Your task to perform on an android device: turn on location history Image 0: 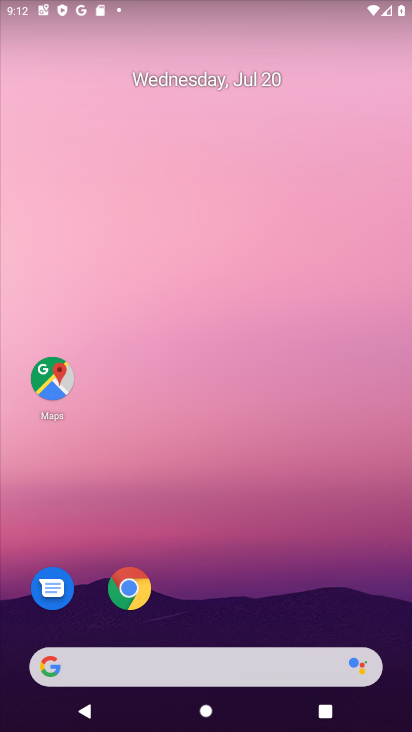
Step 0: click (338, 192)
Your task to perform on an android device: turn on location history Image 1: 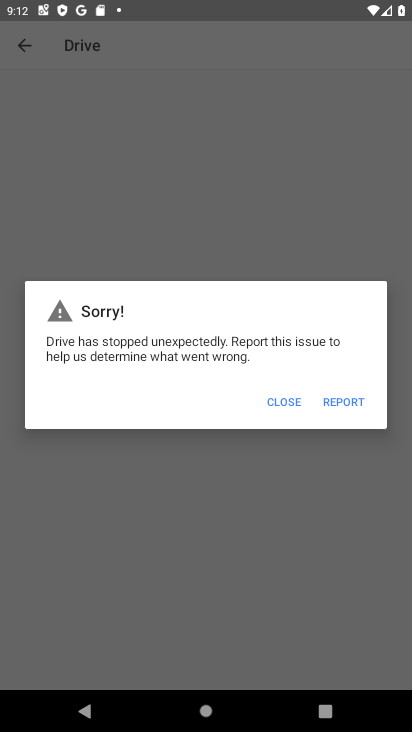
Step 1: click (282, 400)
Your task to perform on an android device: turn on location history Image 2: 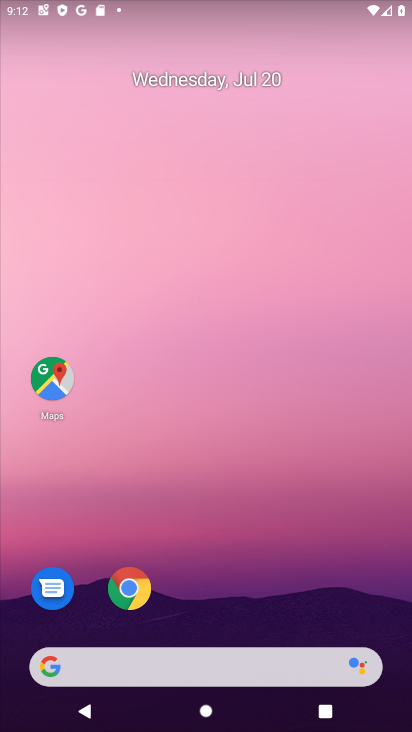
Step 2: drag from (210, 625) to (315, 1)
Your task to perform on an android device: turn on location history Image 3: 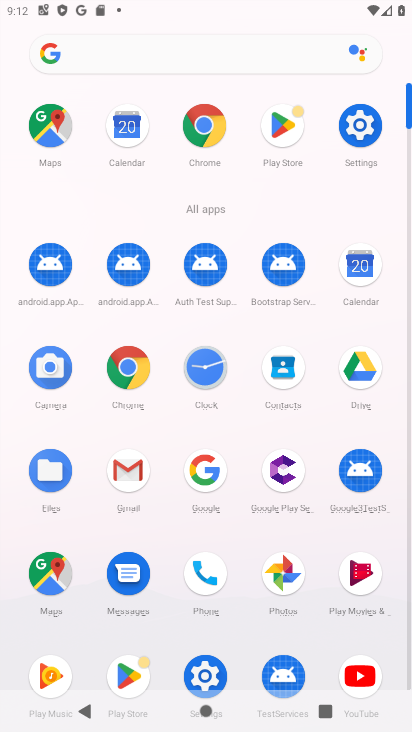
Step 3: click (351, 110)
Your task to perform on an android device: turn on location history Image 4: 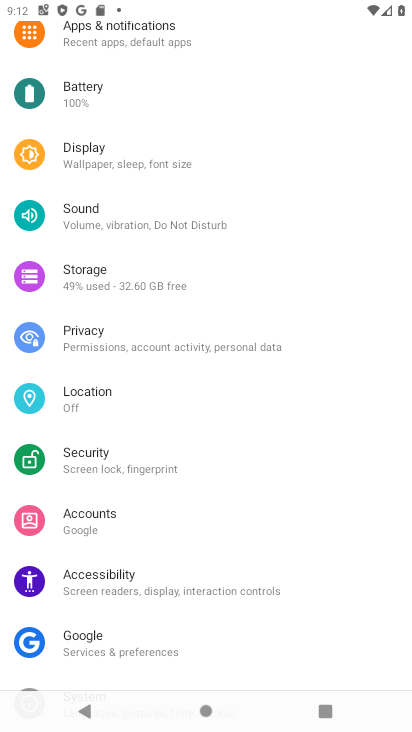
Step 4: click (107, 402)
Your task to perform on an android device: turn on location history Image 5: 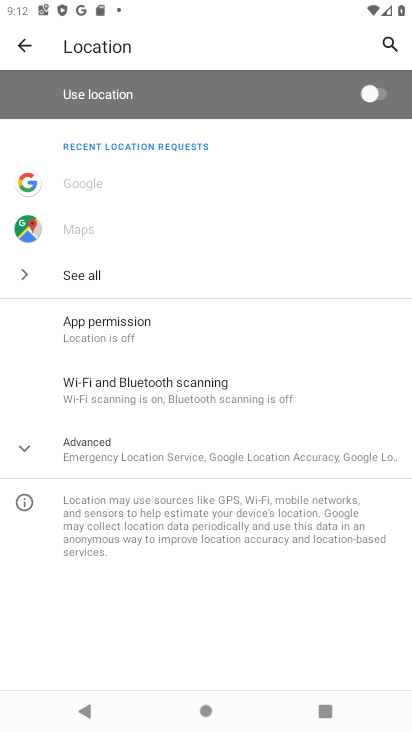
Step 5: click (123, 444)
Your task to perform on an android device: turn on location history Image 6: 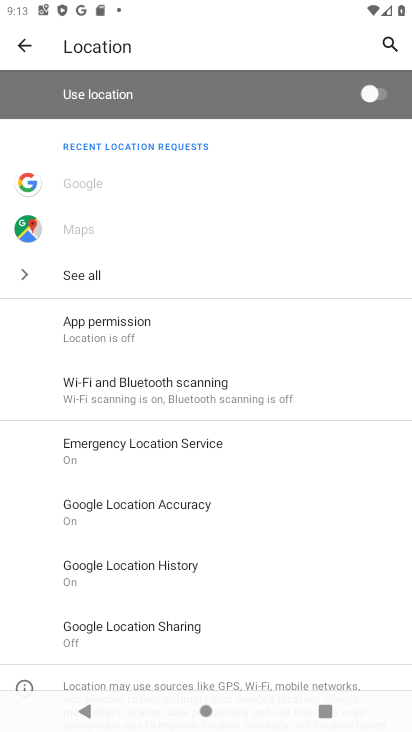
Step 6: click (151, 571)
Your task to perform on an android device: turn on location history Image 7: 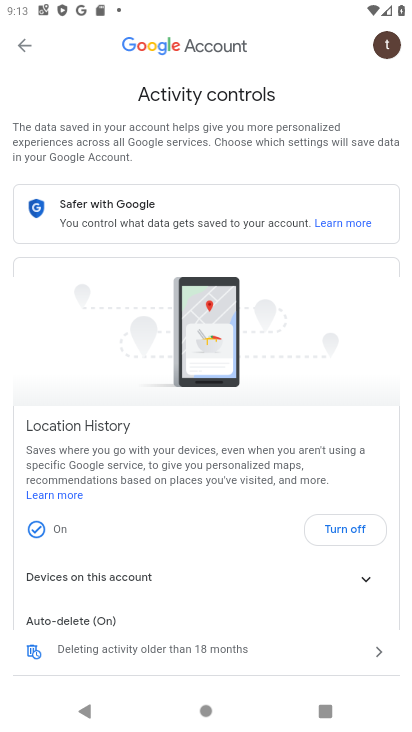
Step 7: task complete